Your task to perform on an android device: change notification settings in the gmail app Image 0: 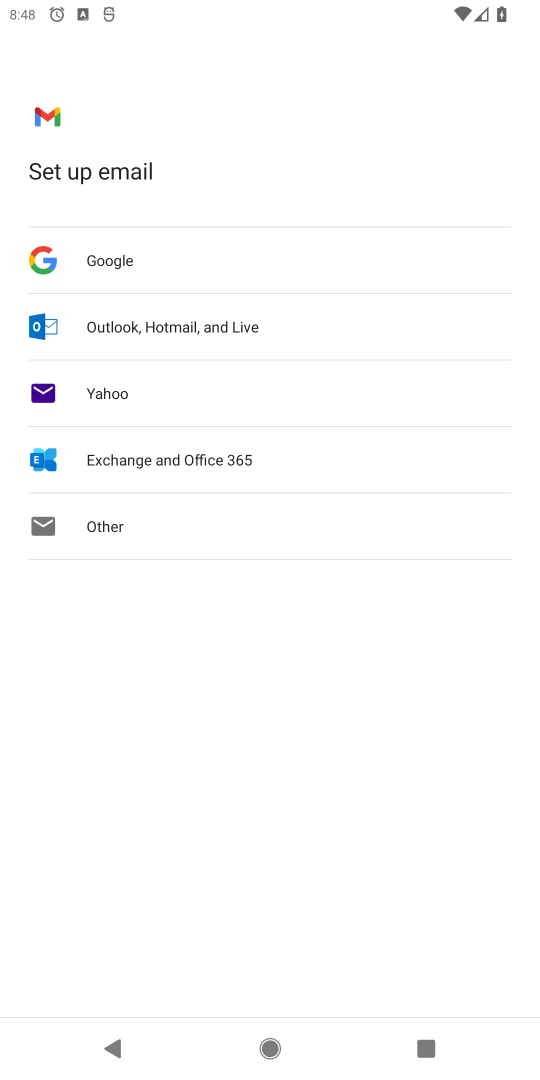
Step 0: press home button
Your task to perform on an android device: change notification settings in the gmail app Image 1: 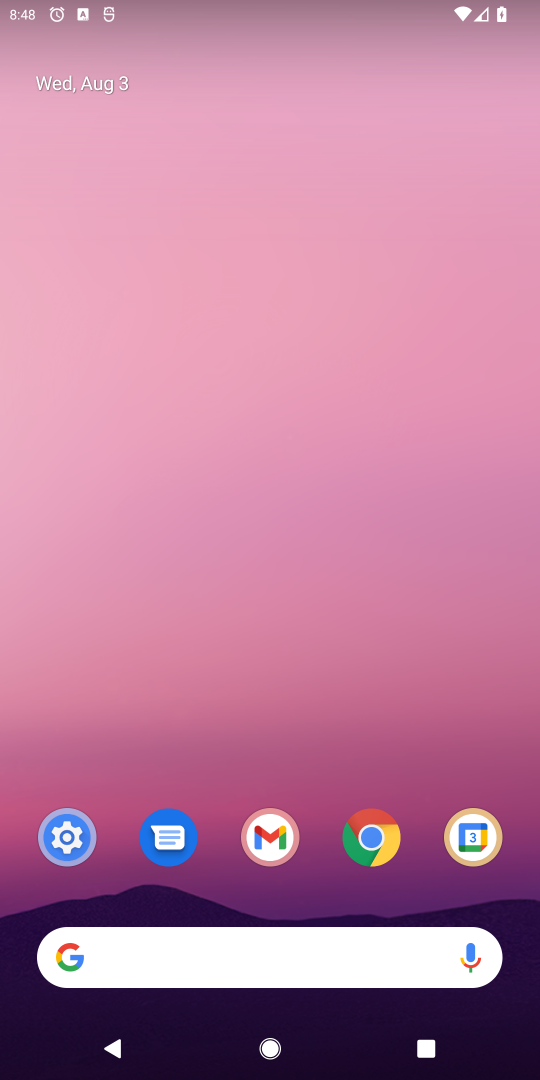
Step 1: click (272, 836)
Your task to perform on an android device: change notification settings in the gmail app Image 2: 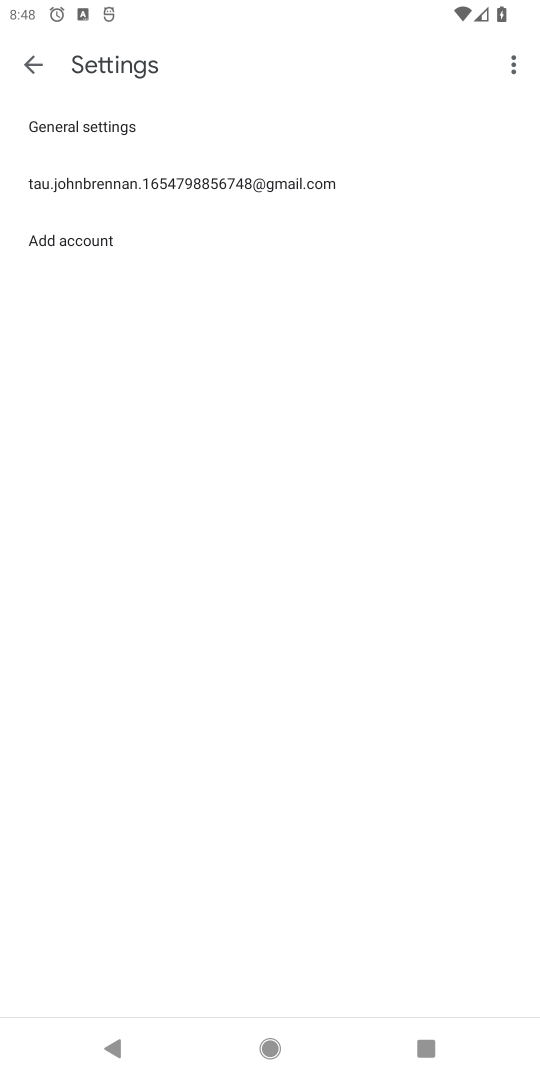
Step 2: click (108, 189)
Your task to perform on an android device: change notification settings in the gmail app Image 3: 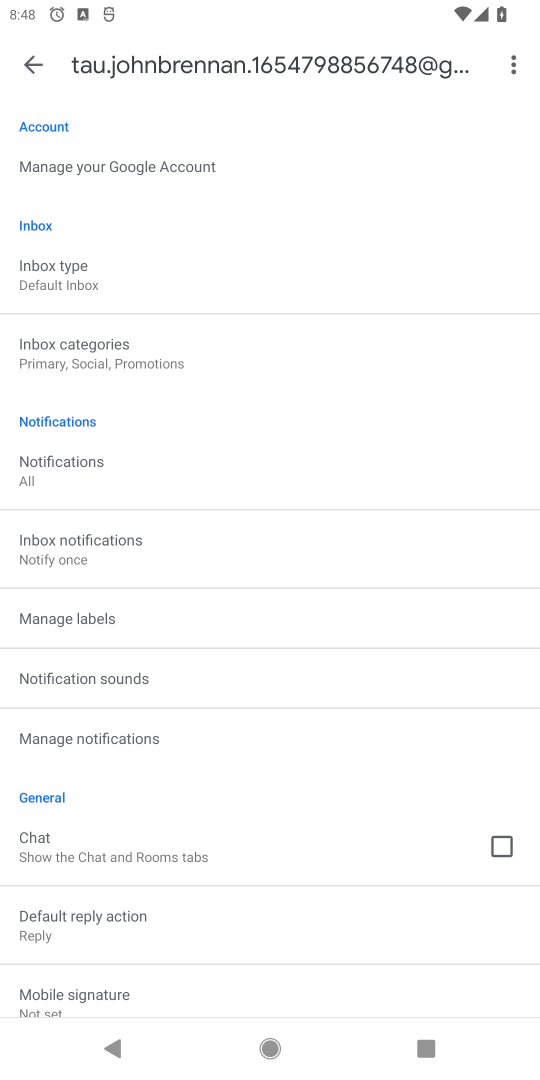
Step 3: click (78, 745)
Your task to perform on an android device: change notification settings in the gmail app Image 4: 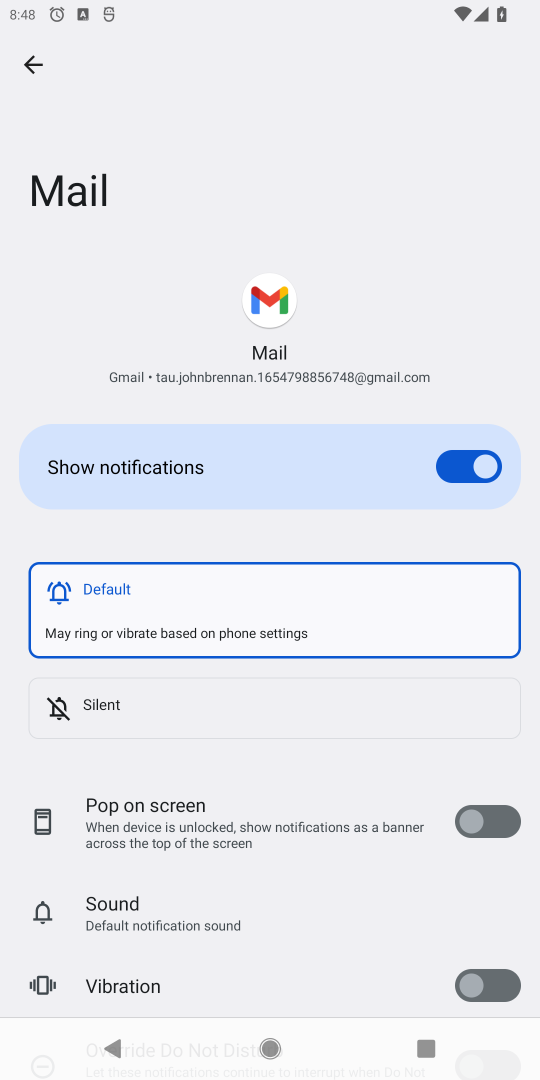
Step 4: click (473, 479)
Your task to perform on an android device: change notification settings in the gmail app Image 5: 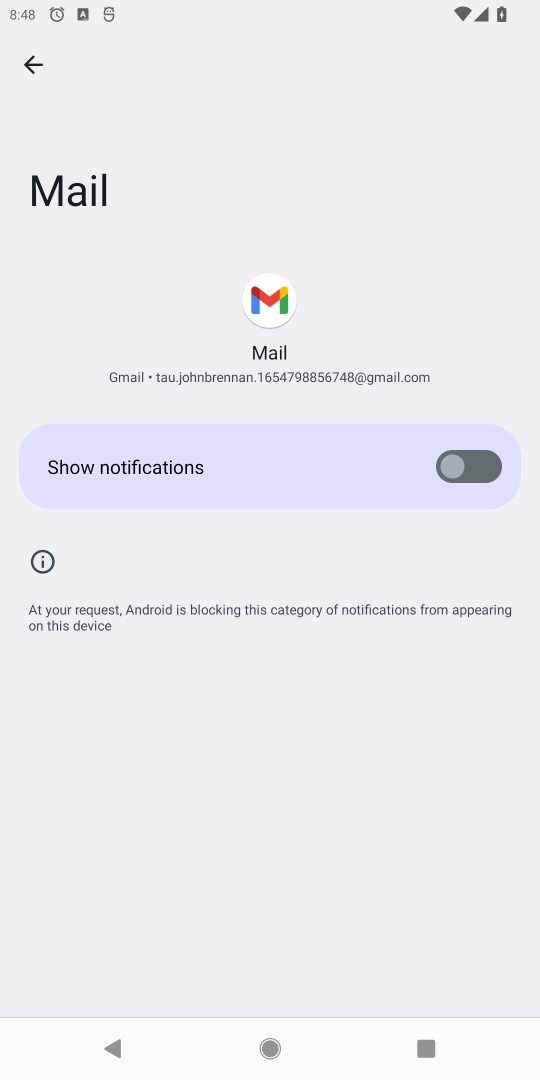
Step 5: task complete